Your task to perform on an android device: Do I have any events today? Image 0: 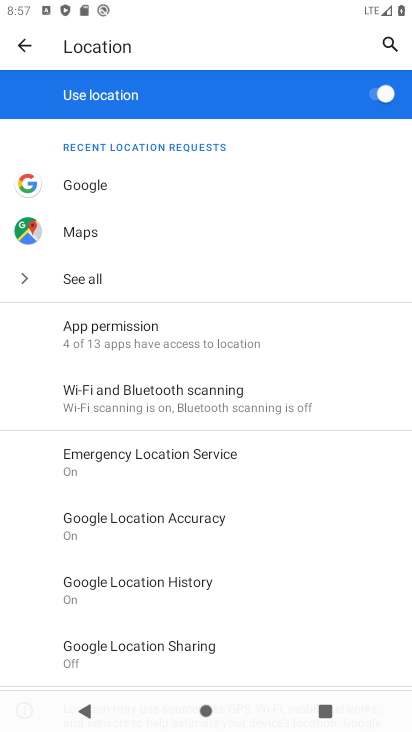
Step 0: press home button
Your task to perform on an android device: Do I have any events today? Image 1: 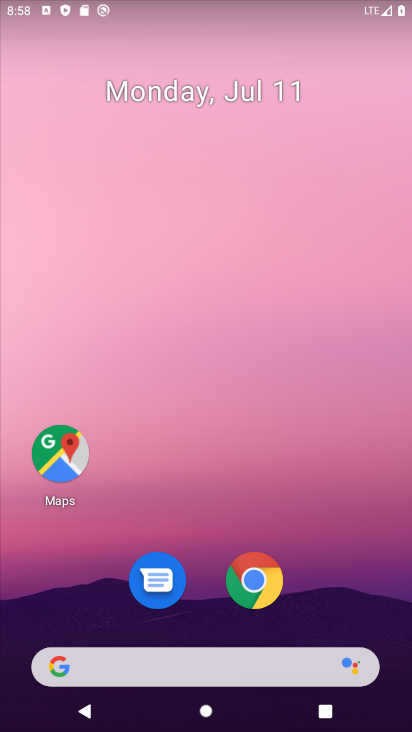
Step 1: drag from (250, 512) to (249, 18)
Your task to perform on an android device: Do I have any events today? Image 2: 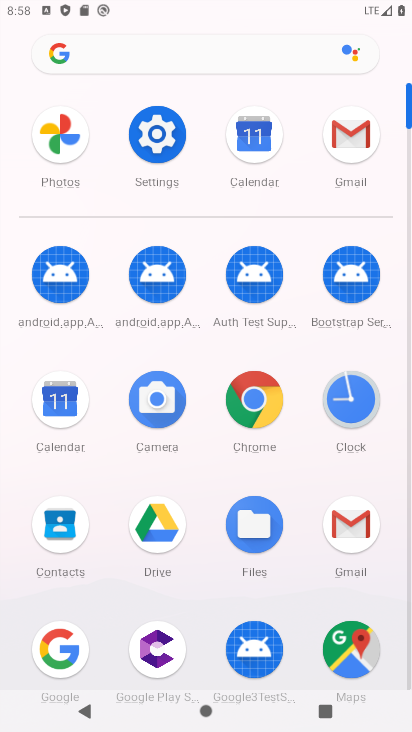
Step 2: click (56, 400)
Your task to perform on an android device: Do I have any events today? Image 3: 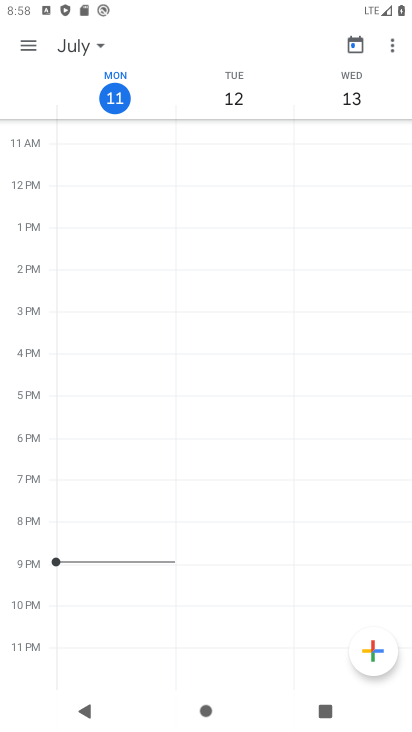
Step 3: task complete